Your task to perform on an android device: move a message to another label in the gmail app Image 0: 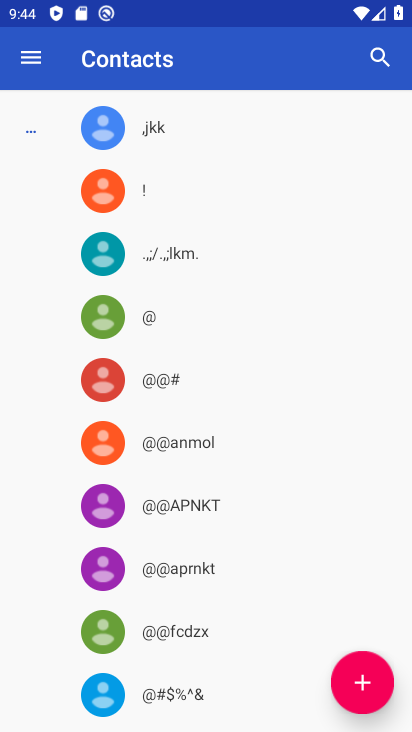
Step 0: press home button
Your task to perform on an android device: move a message to another label in the gmail app Image 1: 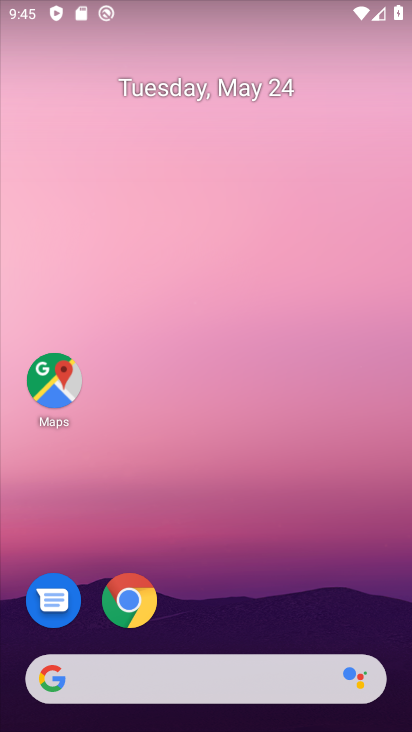
Step 1: drag from (236, 568) to (230, 180)
Your task to perform on an android device: move a message to another label in the gmail app Image 2: 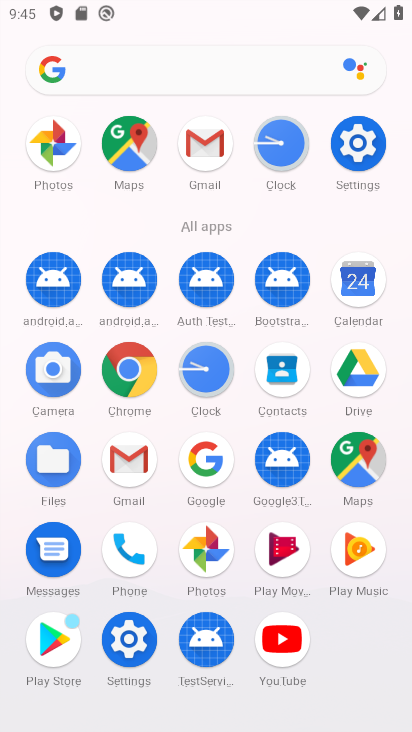
Step 2: click (222, 154)
Your task to perform on an android device: move a message to another label in the gmail app Image 3: 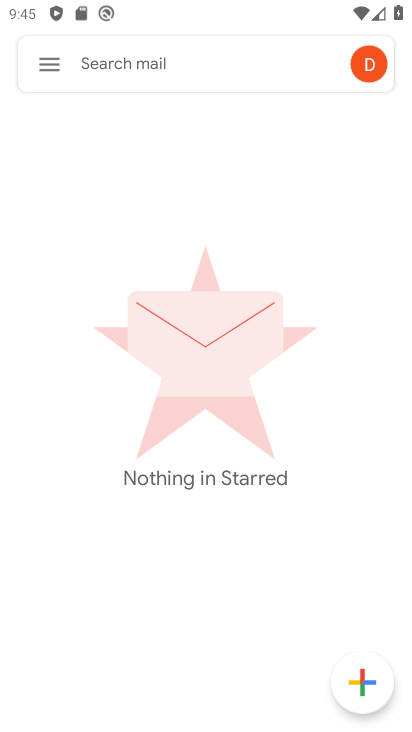
Step 3: click (38, 61)
Your task to perform on an android device: move a message to another label in the gmail app Image 4: 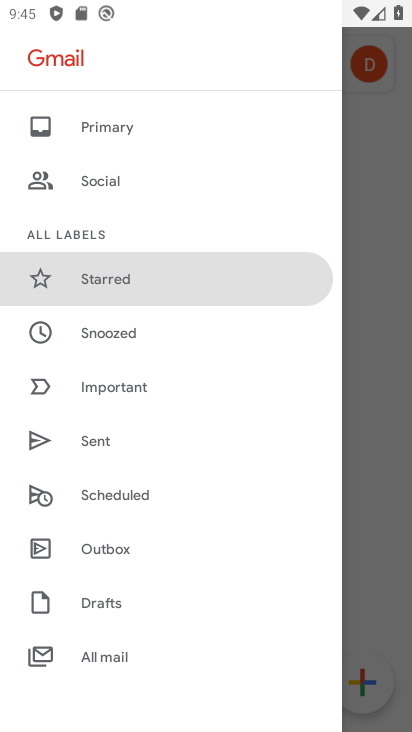
Step 4: click (117, 645)
Your task to perform on an android device: move a message to another label in the gmail app Image 5: 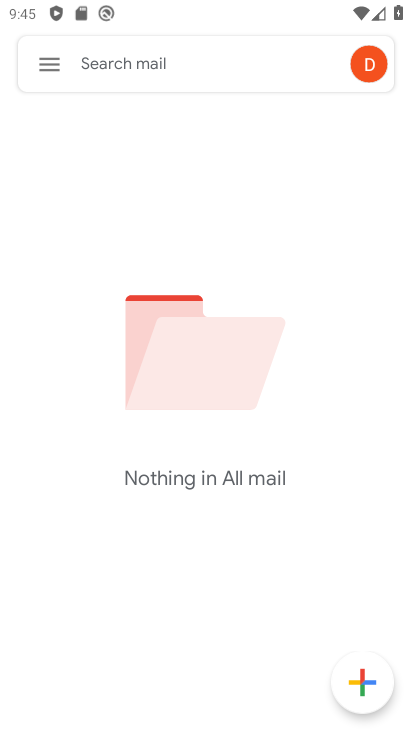
Step 5: task complete